Your task to perform on an android device: open chrome privacy settings Image 0: 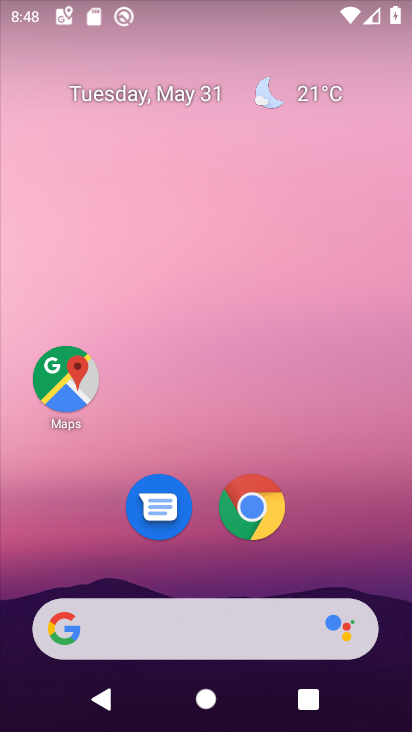
Step 0: drag from (263, 600) to (183, 29)
Your task to perform on an android device: open chrome privacy settings Image 1: 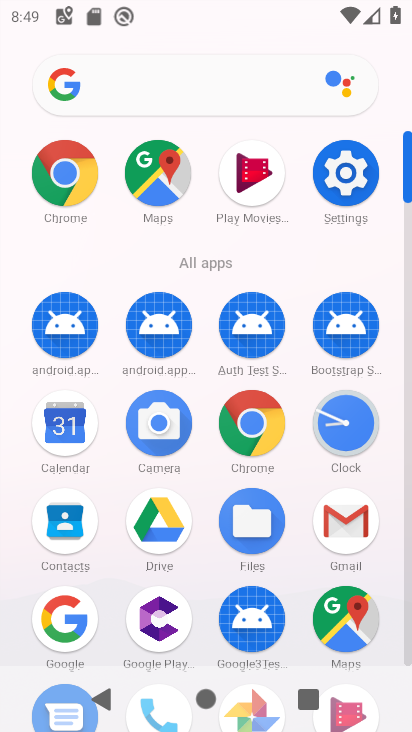
Step 1: drag from (287, 566) to (235, 286)
Your task to perform on an android device: open chrome privacy settings Image 2: 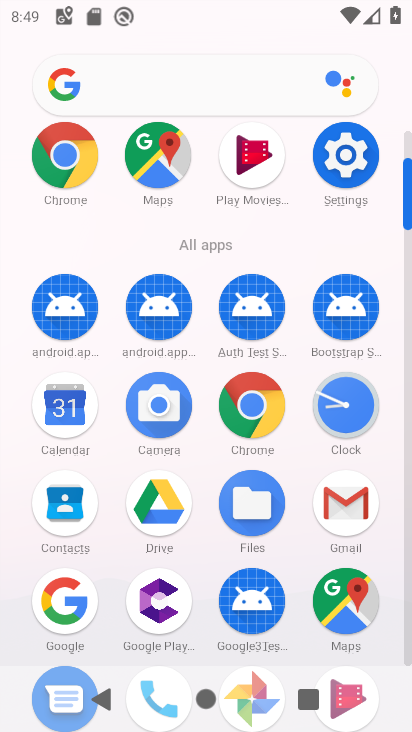
Step 2: drag from (305, 468) to (255, 82)
Your task to perform on an android device: open chrome privacy settings Image 3: 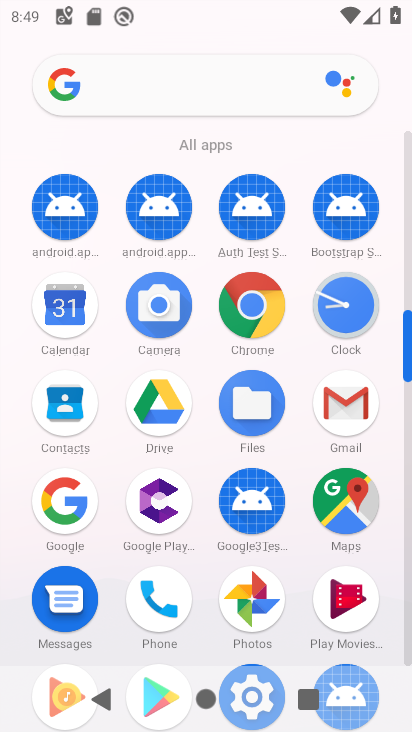
Step 3: drag from (288, 547) to (247, 254)
Your task to perform on an android device: open chrome privacy settings Image 4: 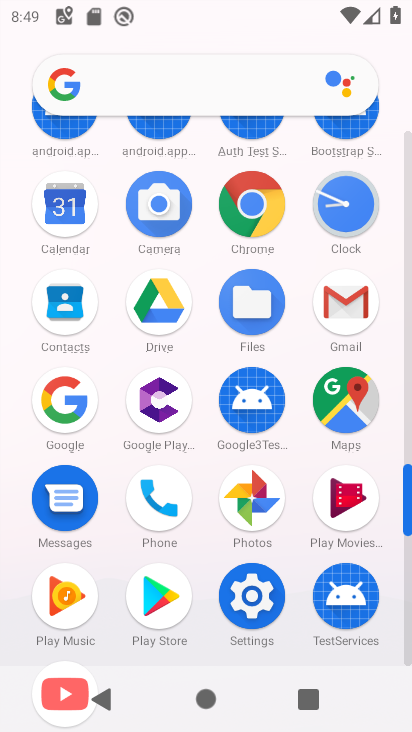
Step 4: click (258, 591)
Your task to perform on an android device: open chrome privacy settings Image 5: 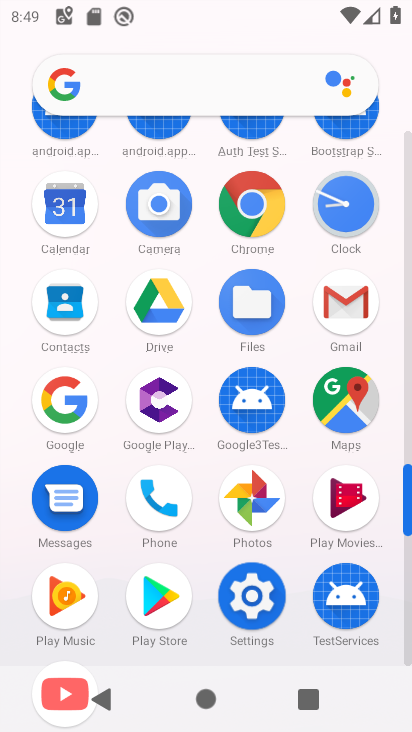
Step 5: click (258, 591)
Your task to perform on an android device: open chrome privacy settings Image 6: 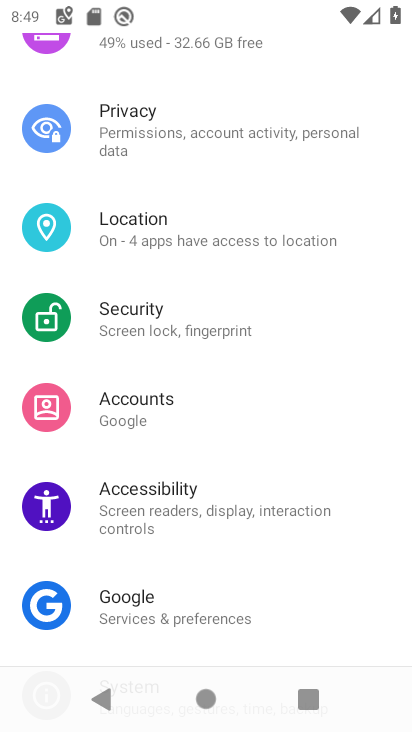
Step 6: click (122, 122)
Your task to perform on an android device: open chrome privacy settings Image 7: 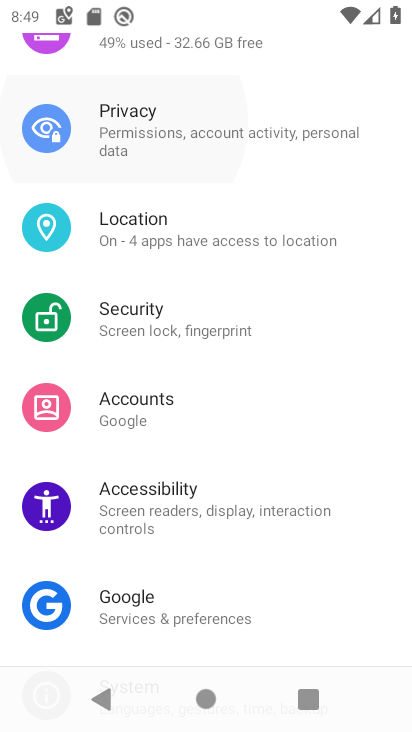
Step 7: click (124, 121)
Your task to perform on an android device: open chrome privacy settings Image 8: 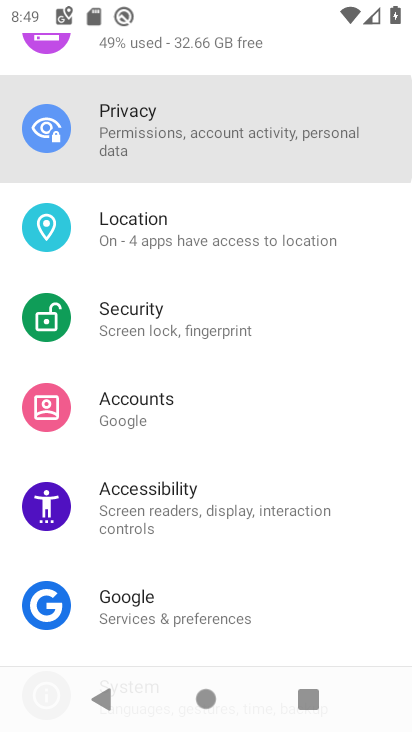
Step 8: click (126, 122)
Your task to perform on an android device: open chrome privacy settings Image 9: 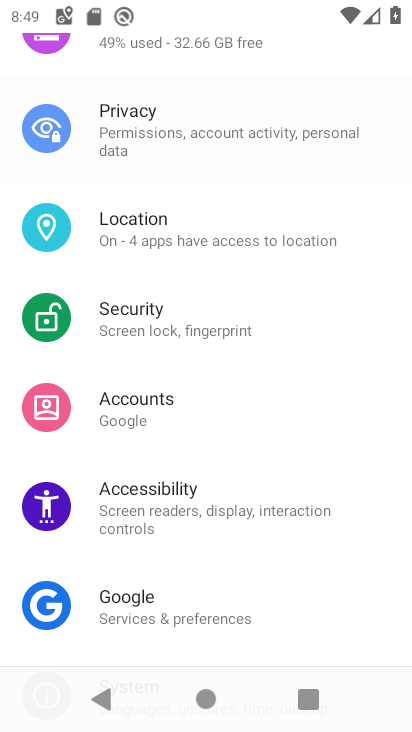
Step 9: click (126, 122)
Your task to perform on an android device: open chrome privacy settings Image 10: 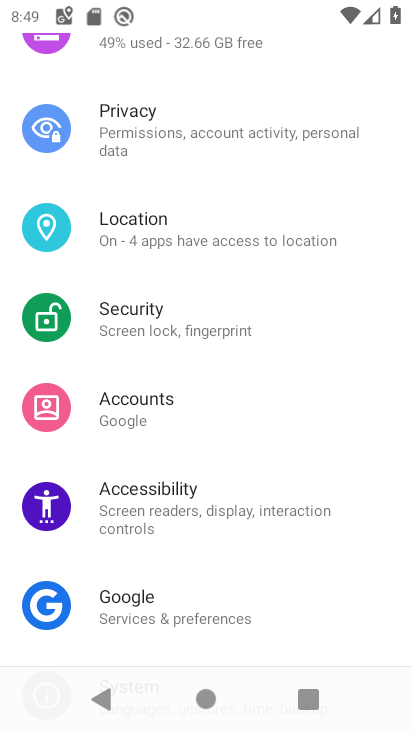
Step 10: click (126, 122)
Your task to perform on an android device: open chrome privacy settings Image 11: 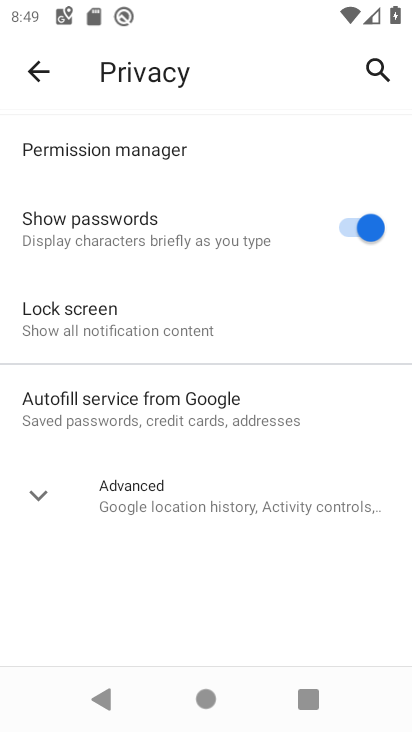
Step 11: click (126, 122)
Your task to perform on an android device: open chrome privacy settings Image 12: 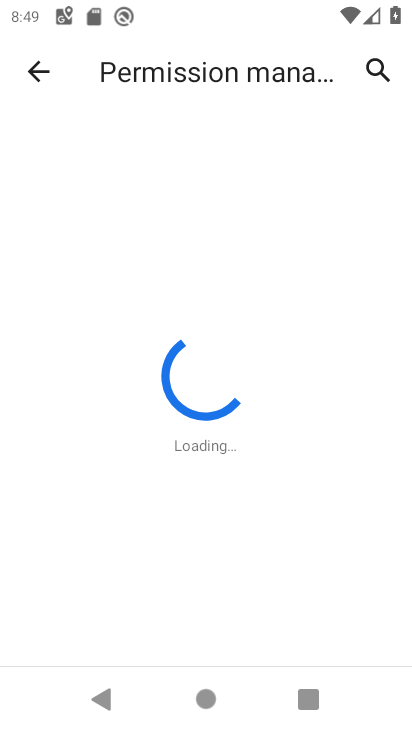
Step 12: click (34, 65)
Your task to perform on an android device: open chrome privacy settings Image 13: 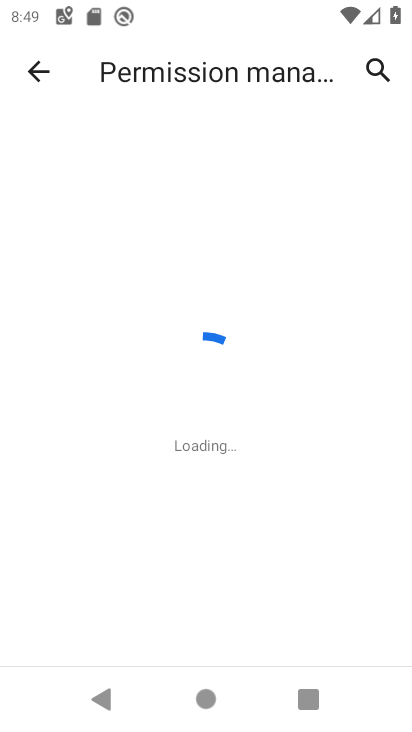
Step 13: click (34, 65)
Your task to perform on an android device: open chrome privacy settings Image 14: 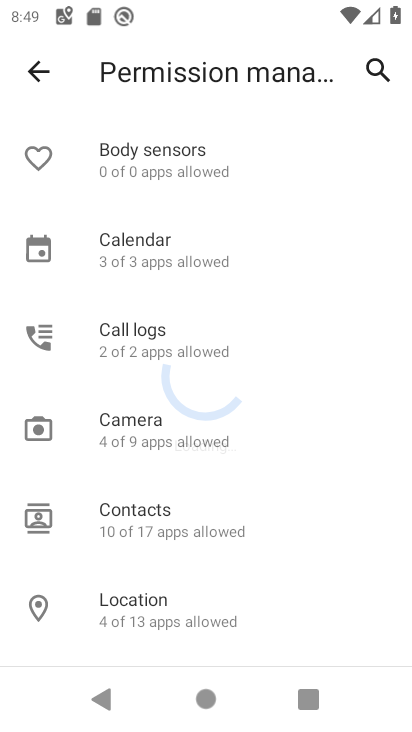
Step 14: click (33, 65)
Your task to perform on an android device: open chrome privacy settings Image 15: 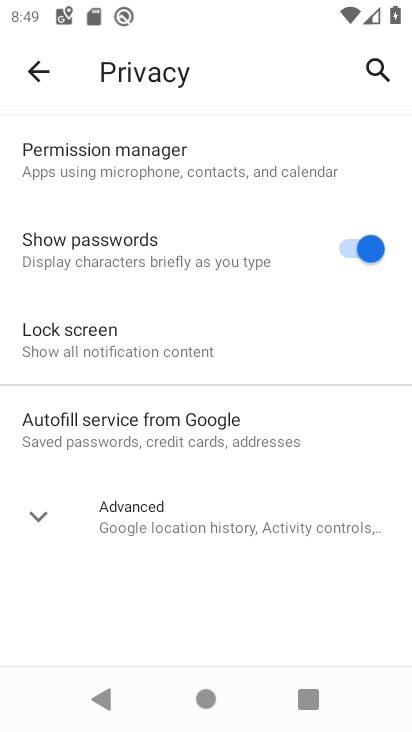
Step 15: task complete